Your task to perform on an android device: Open the web browser Image 0: 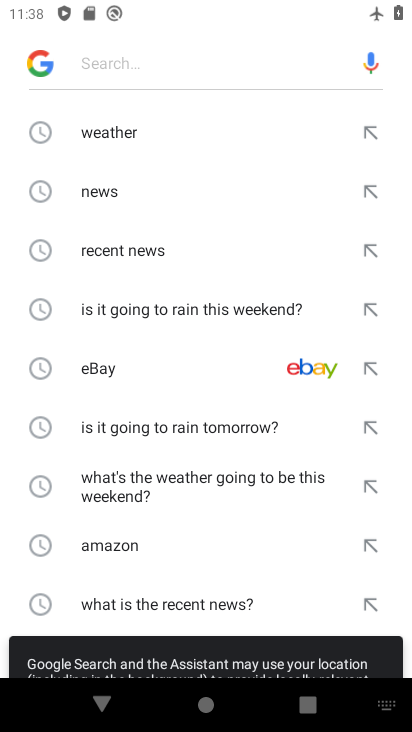
Step 0: press home button
Your task to perform on an android device: Open the web browser Image 1: 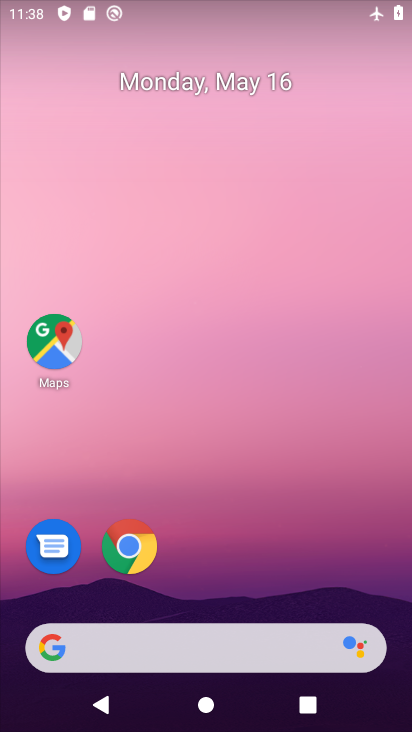
Step 1: click (131, 543)
Your task to perform on an android device: Open the web browser Image 2: 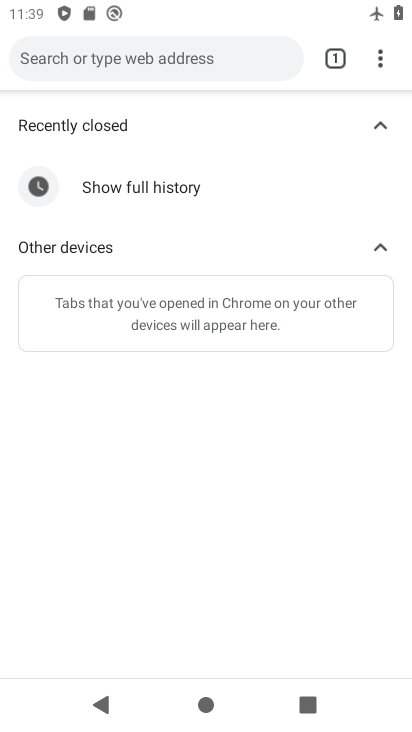
Step 2: task complete